Your task to perform on an android device: Go to wifi settings Image 0: 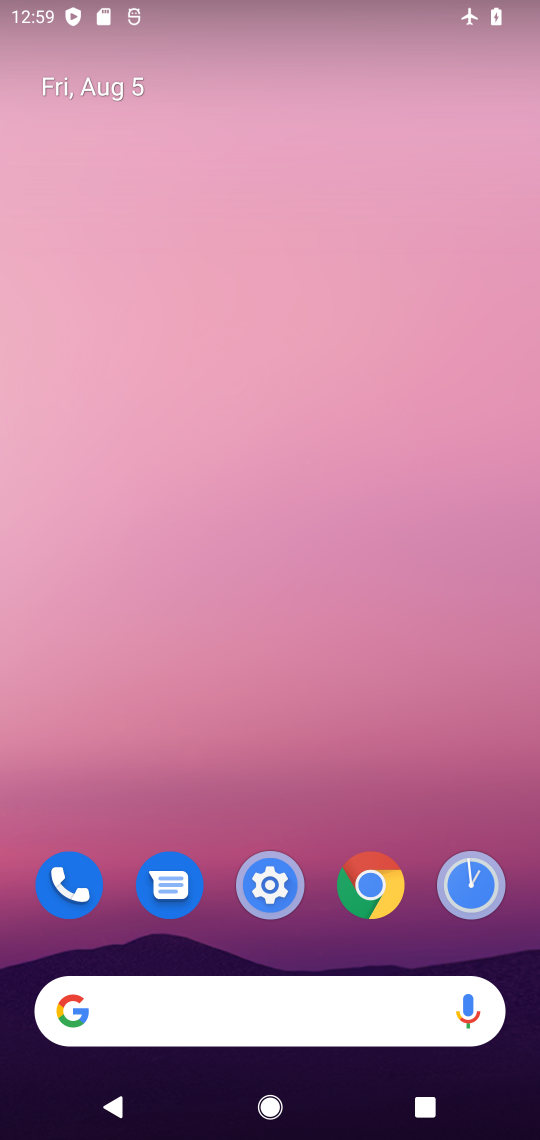
Step 0: click (379, 892)
Your task to perform on an android device: Go to wifi settings Image 1: 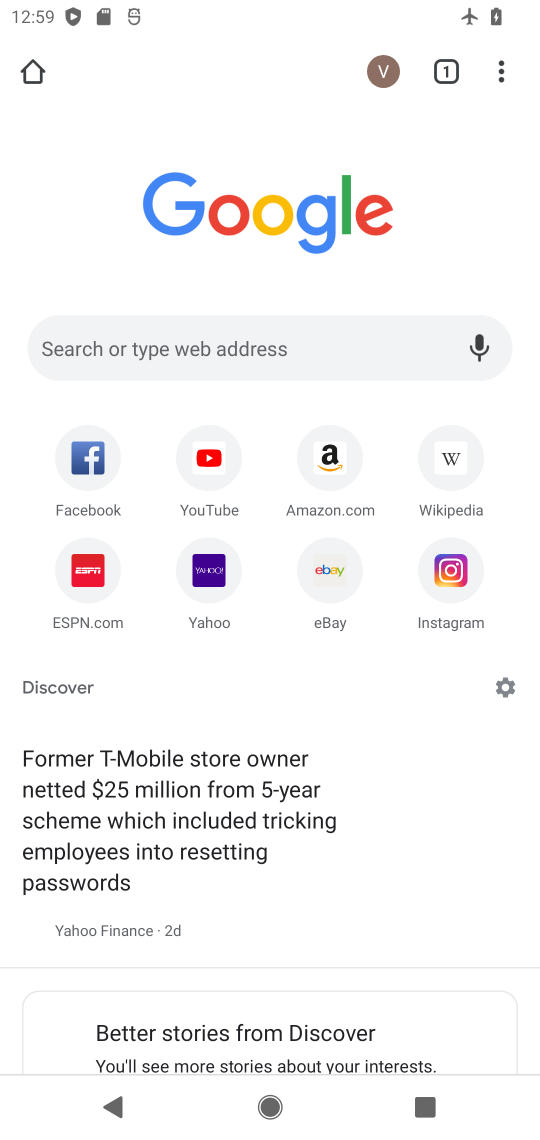
Step 1: press home button
Your task to perform on an android device: Go to wifi settings Image 2: 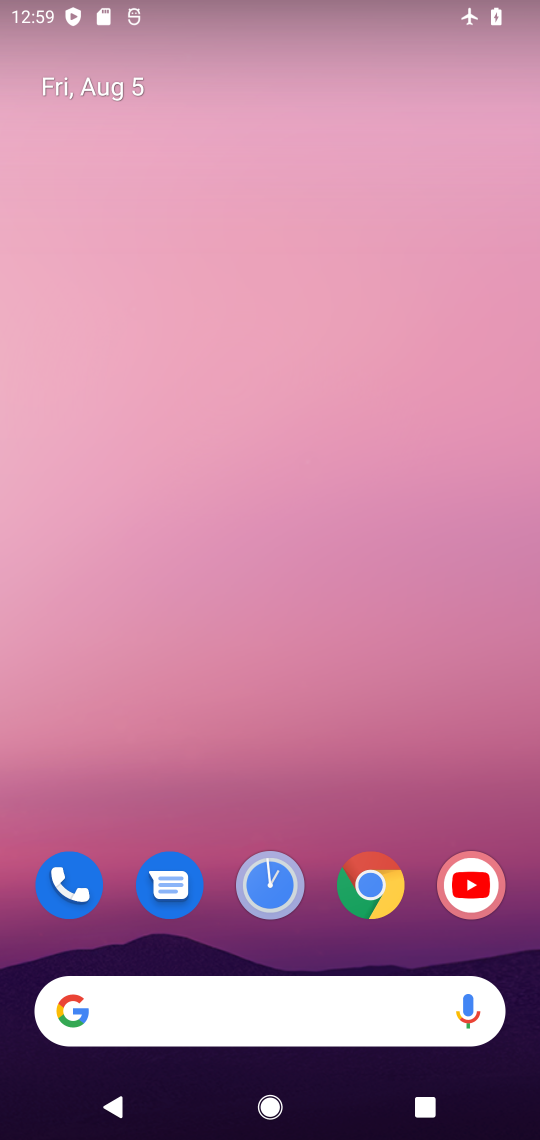
Step 2: drag from (304, 656) to (304, 190)
Your task to perform on an android device: Go to wifi settings Image 3: 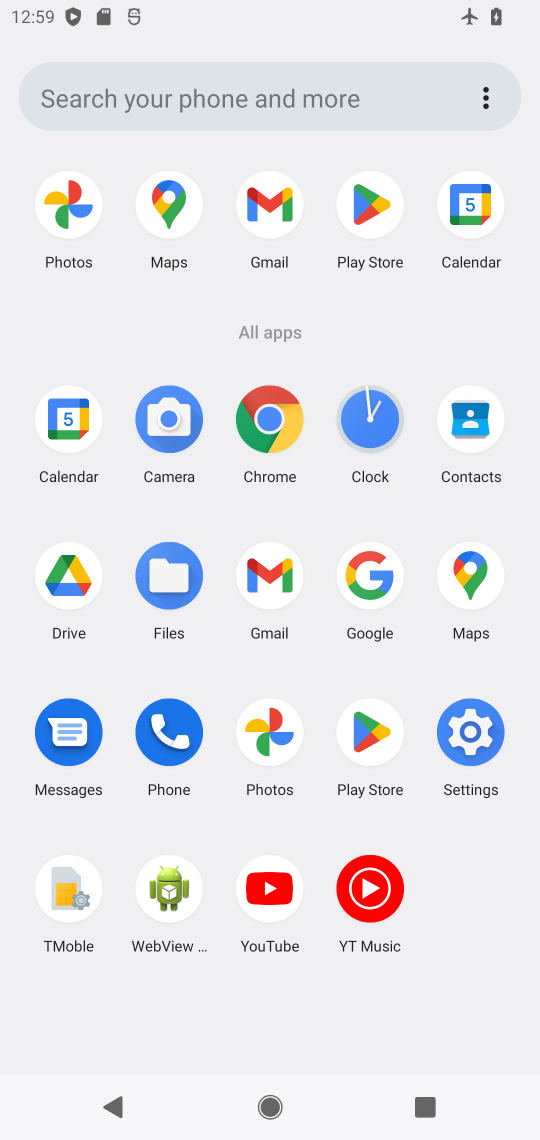
Step 3: click (475, 718)
Your task to perform on an android device: Go to wifi settings Image 4: 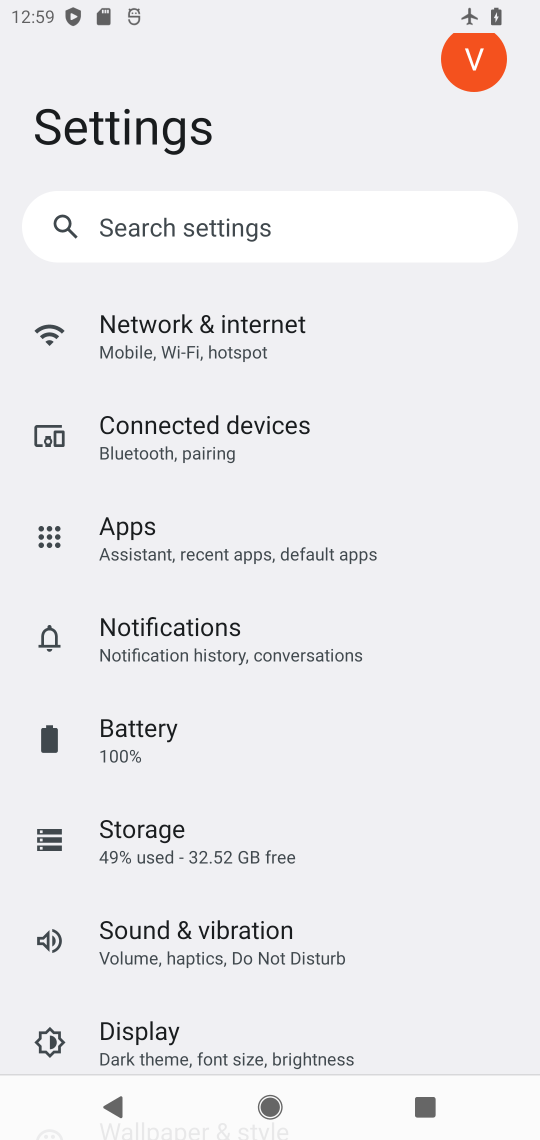
Step 4: click (100, 361)
Your task to perform on an android device: Go to wifi settings Image 5: 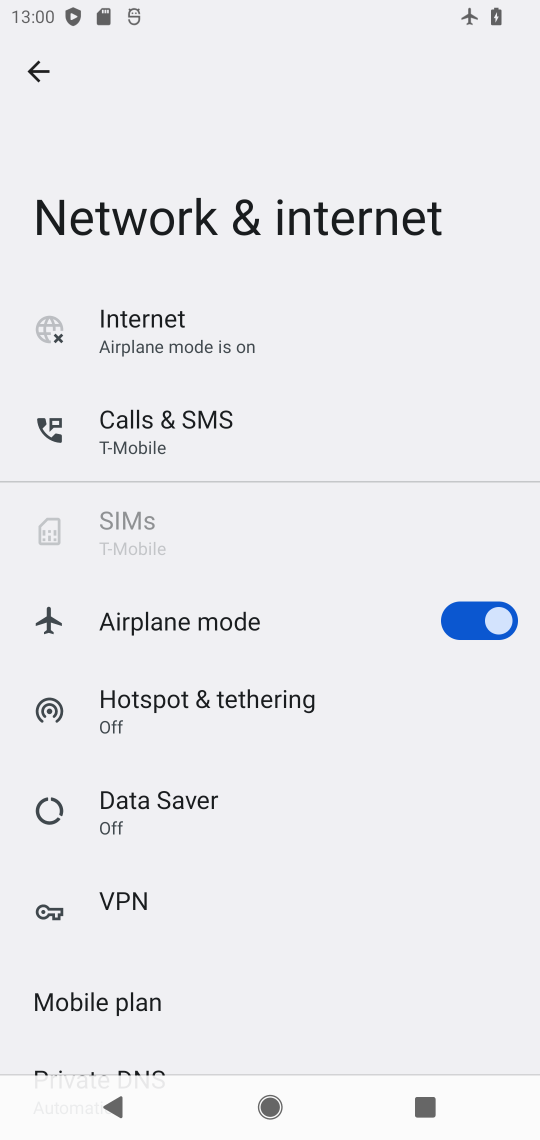
Step 5: click (189, 336)
Your task to perform on an android device: Go to wifi settings Image 6: 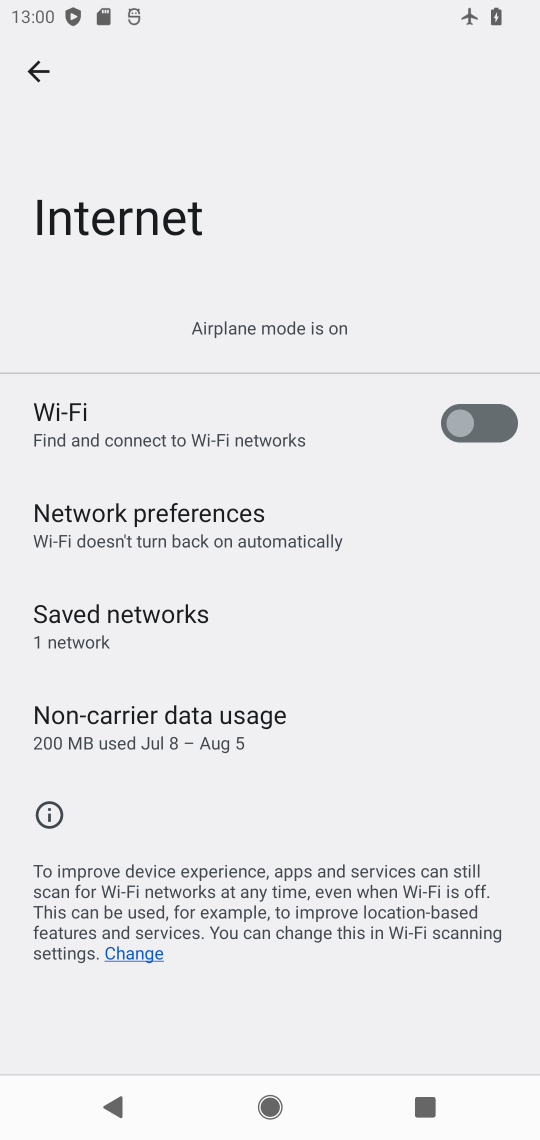
Step 6: click (493, 427)
Your task to perform on an android device: Go to wifi settings Image 7: 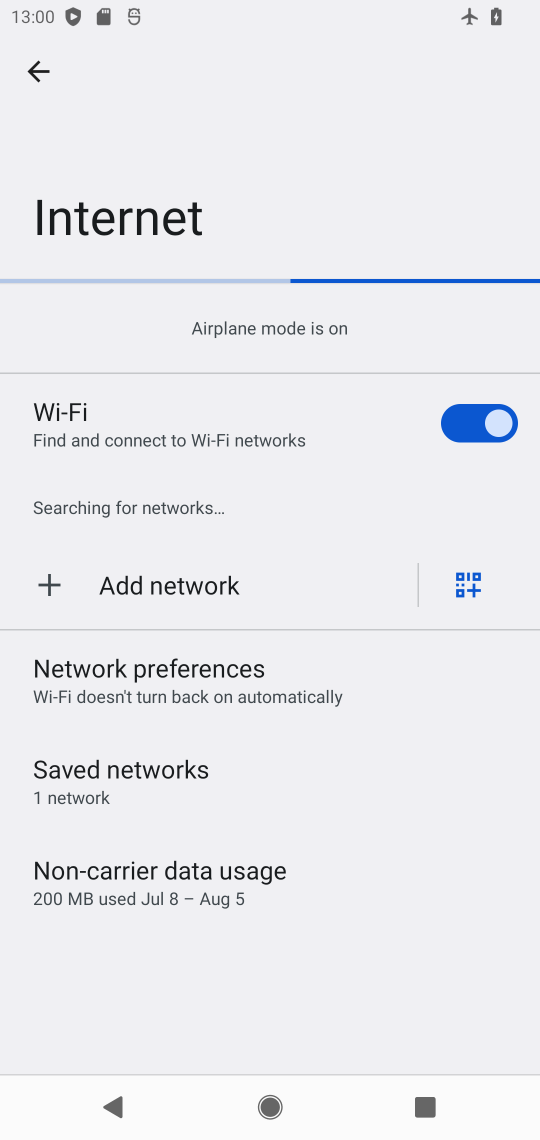
Step 7: task complete